Your task to perform on an android device: add a label to a message in the gmail app Image 0: 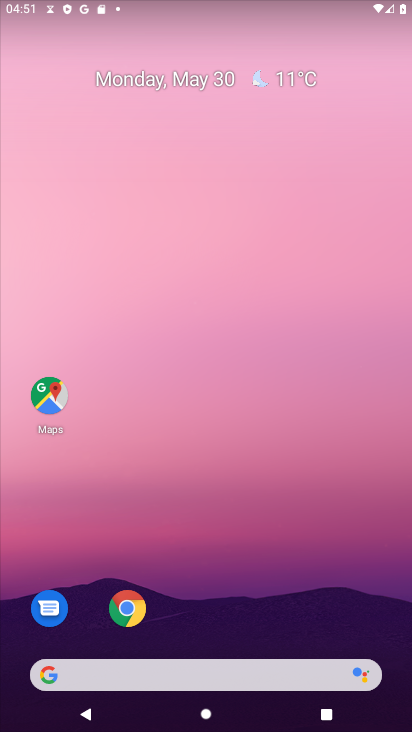
Step 0: drag from (177, 627) to (176, 379)
Your task to perform on an android device: add a label to a message in the gmail app Image 1: 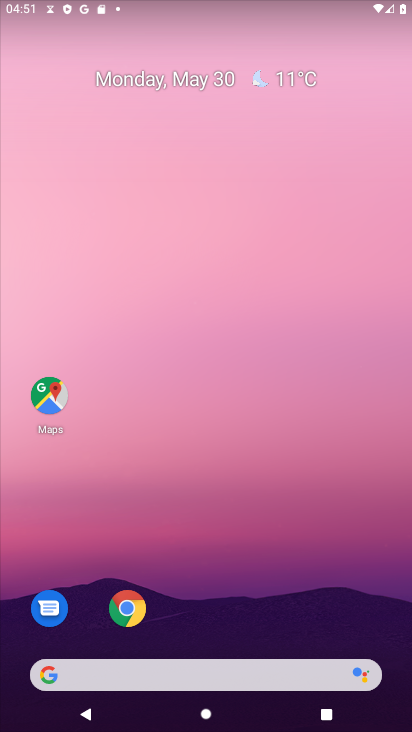
Step 1: drag from (190, 583) to (201, 313)
Your task to perform on an android device: add a label to a message in the gmail app Image 2: 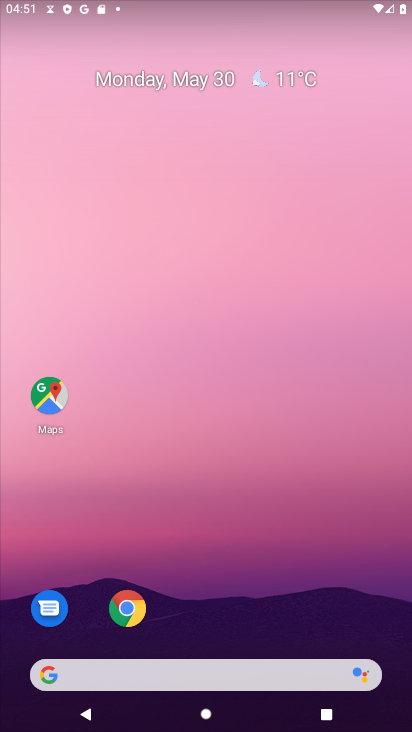
Step 2: click (220, 269)
Your task to perform on an android device: add a label to a message in the gmail app Image 3: 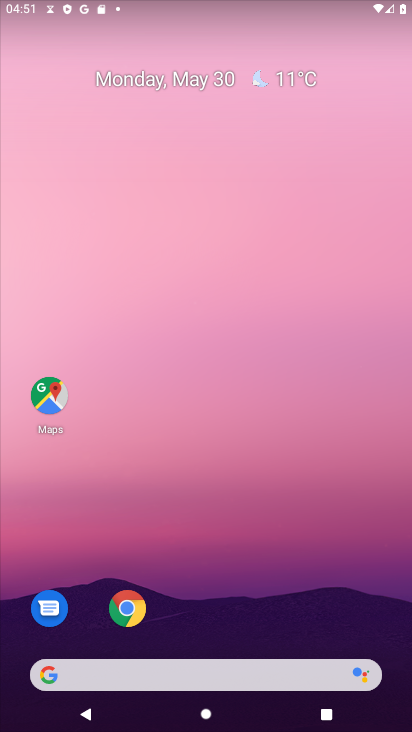
Step 3: drag from (267, 651) to (274, 323)
Your task to perform on an android device: add a label to a message in the gmail app Image 4: 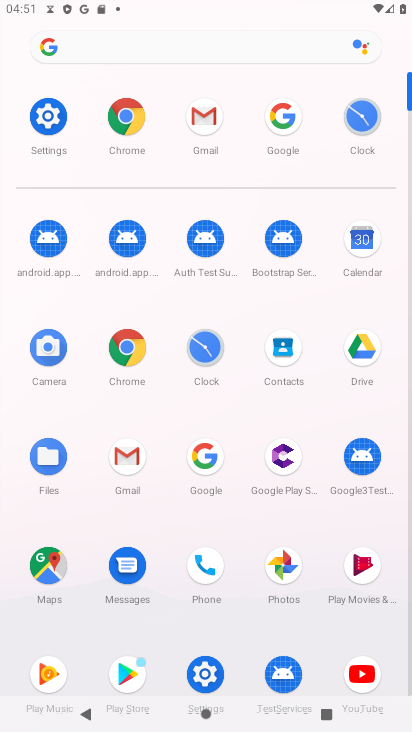
Step 4: click (128, 455)
Your task to perform on an android device: add a label to a message in the gmail app Image 5: 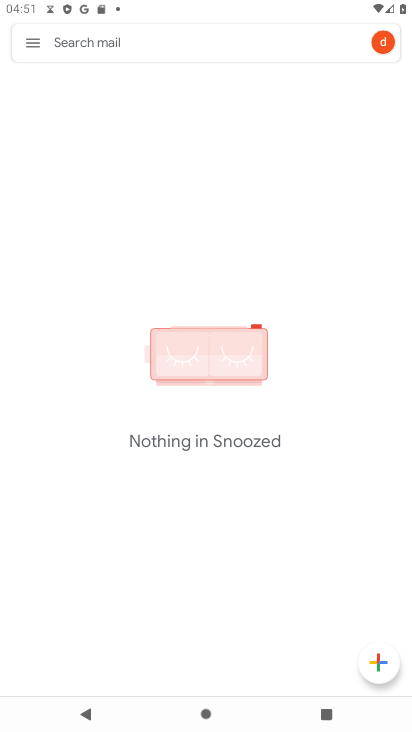
Step 5: click (38, 36)
Your task to perform on an android device: add a label to a message in the gmail app Image 6: 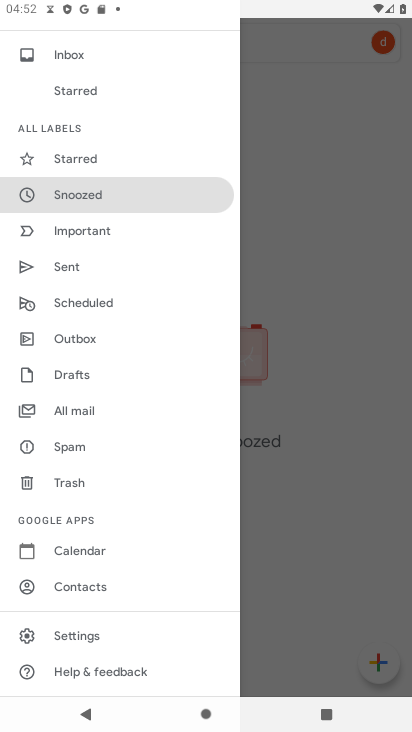
Step 6: click (342, 293)
Your task to perform on an android device: add a label to a message in the gmail app Image 7: 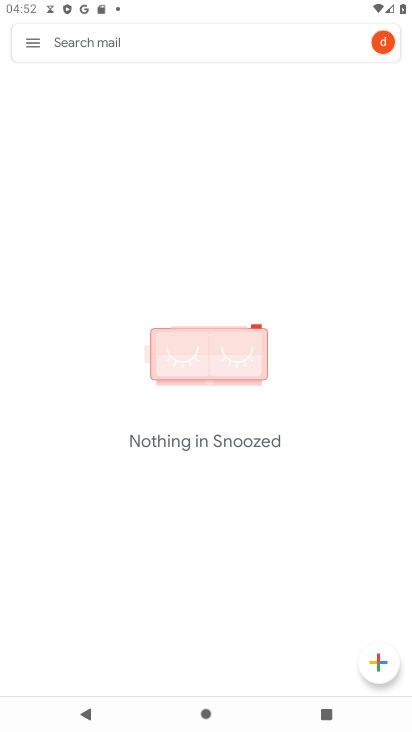
Step 7: click (36, 47)
Your task to perform on an android device: add a label to a message in the gmail app Image 8: 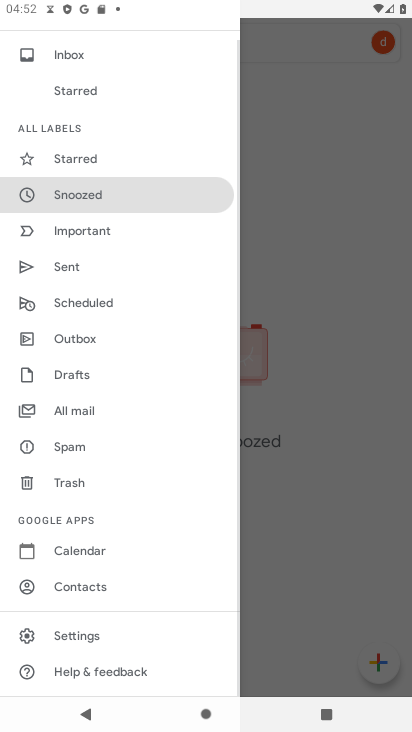
Step 8: click (64, 64)
Your task to perform on an android device: add a label to a message in the gmail app Image 9: 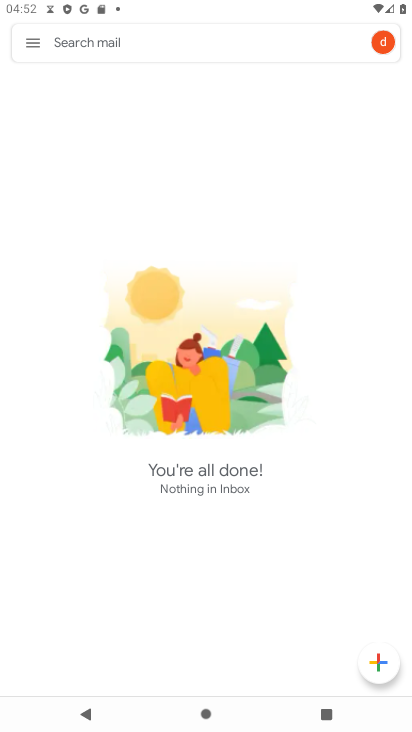
Step 9: task complete